Your task to perform on an android device: turn off picture-in-picture Image 0: 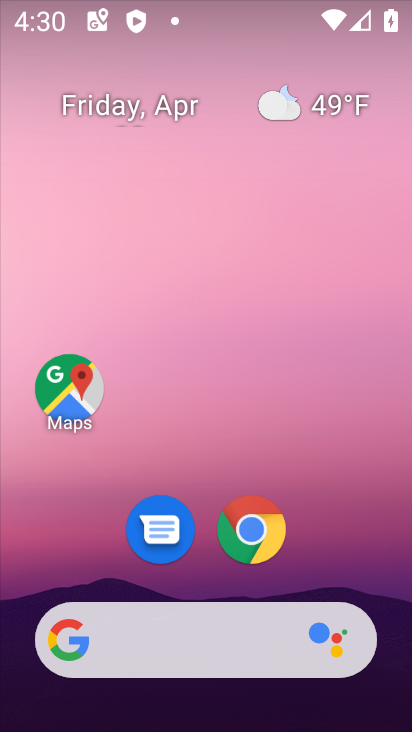
Step 0: drag from (220, 709) to (216, 113)
Your task to perform on an android device: turn off picture-in-picture Image 1: 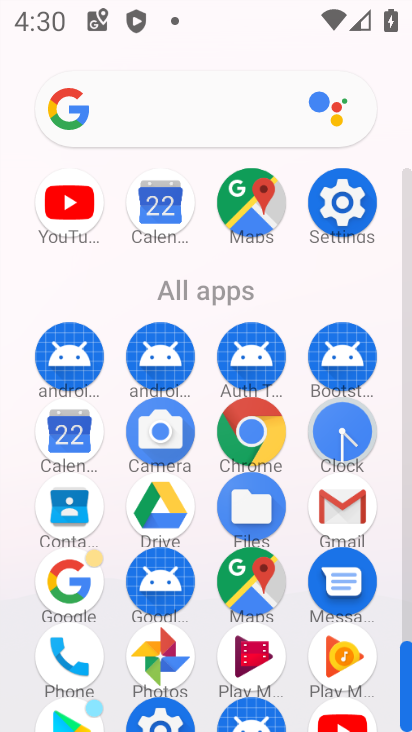
Step 1: click (327, 202)
Your task to perform on an android device: turn off picture-in-picture Image 2: 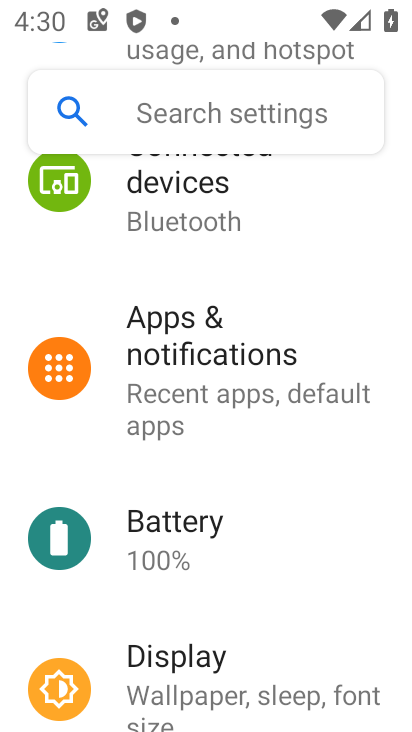
Step 2: click (169, 355)
Your task to perform on an android device: turn off picture-in-picture Image 3: 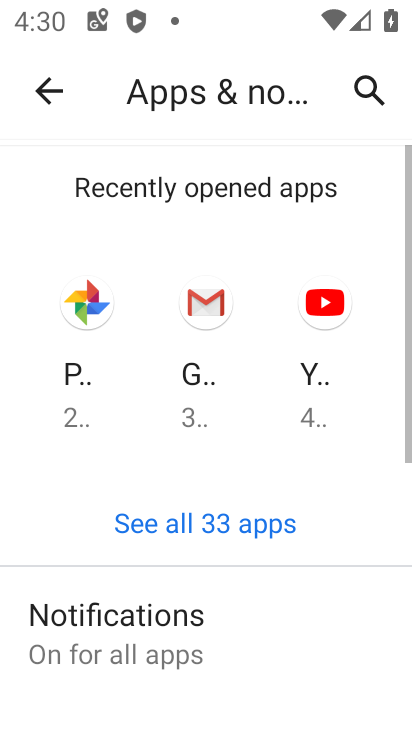
Step 3: drag from (193, 682) to (190, 297)
Your task to perform on an android device: turn off picture-in-picture Image 4: 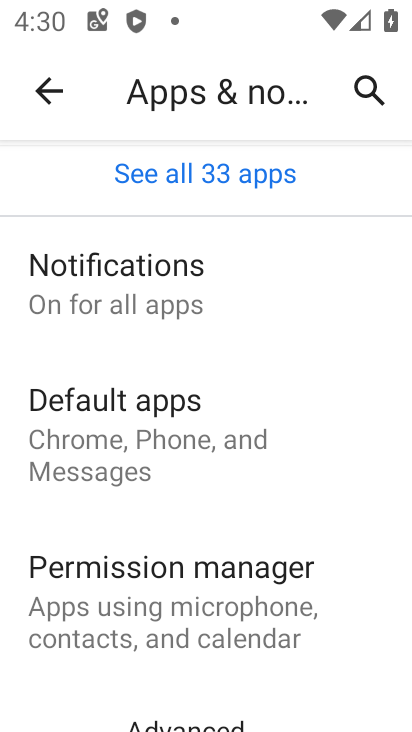
Step 4: drag from (160, 692) to (162, 236)
Your task to perform on an android device: turn off picture-in-picture Image 5: 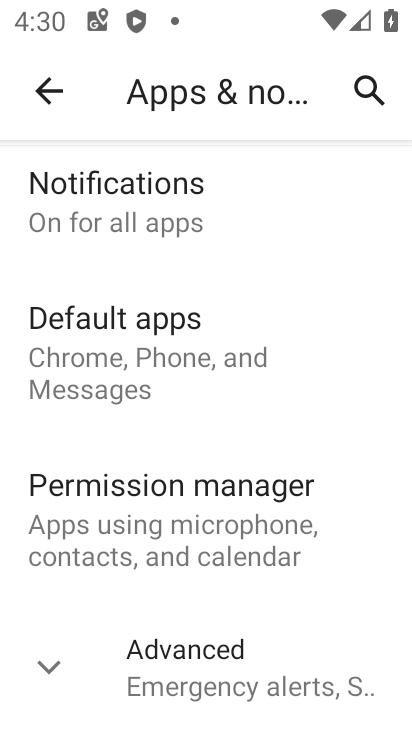
Step 5: click (214, 684)
Your task to perform on an android device: turn off picture-in-picture Image 6: 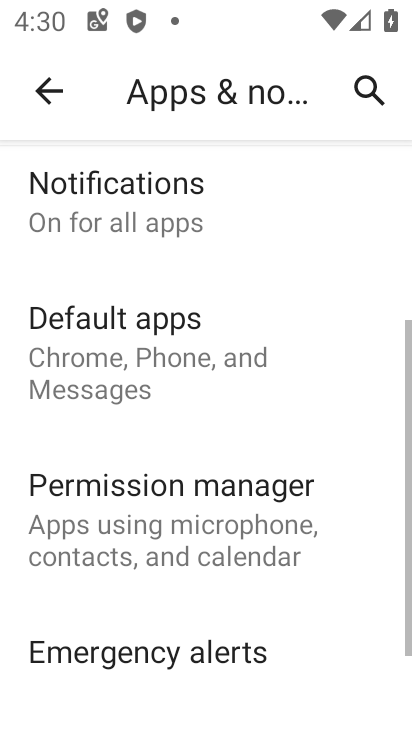
Step 6: drag from (213, 702) to (230, 287)
Your task to perform on an android device: turn off picture-in-picture Image 7: 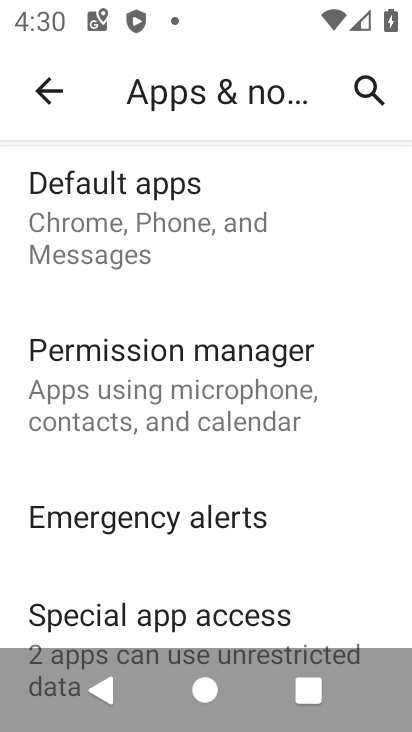
Step 7: click (218, 633)
Your task to perform on an android device: turn off picture-in-picture Image 8: 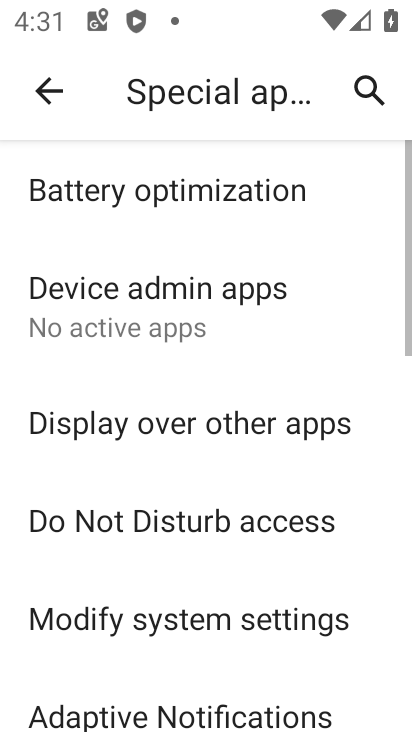
Step 8: drag from (203, 681) to (198, 370)
Your task to perform on an android device: turn off picture-in-picture Image 9: 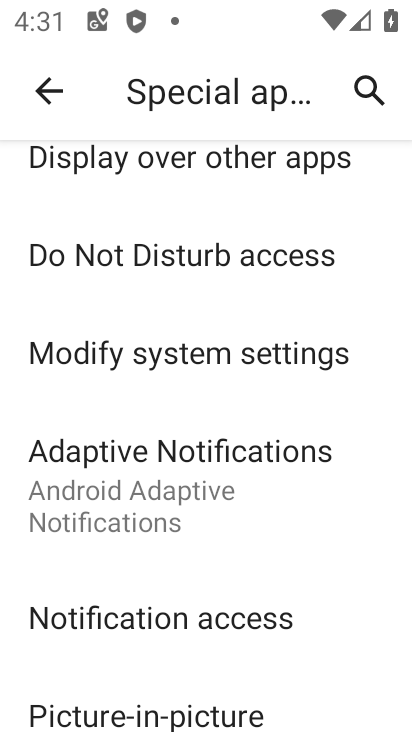
Step 9: drag from (185, 691) to (190, 368)
Your task to perform on an android device: turn off picture-in-picture Image 10: 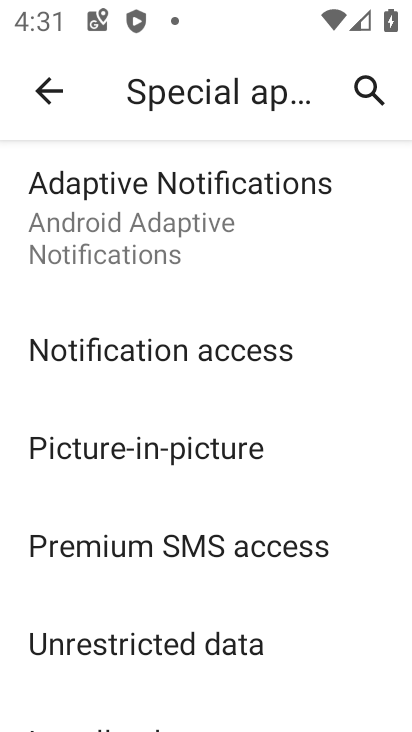
Step 10: click (144, 441)
Your task to perform on an android device: turn off picture-in-picture Image 11: 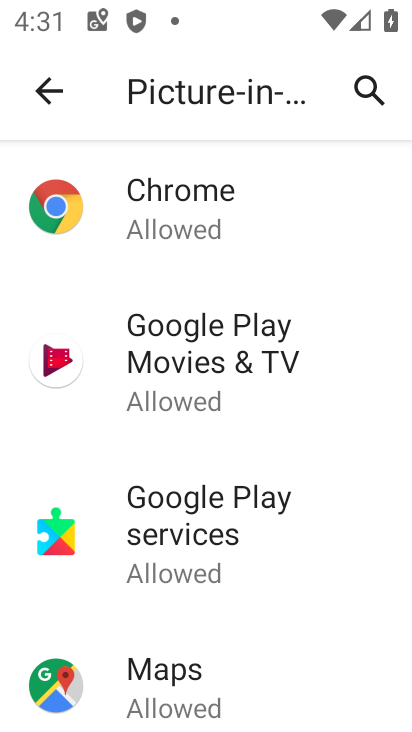
Step 11: drag from (238, 700) to (245, 315)
Your task to perform on an android device: turn off picture-in-picture Image 12: 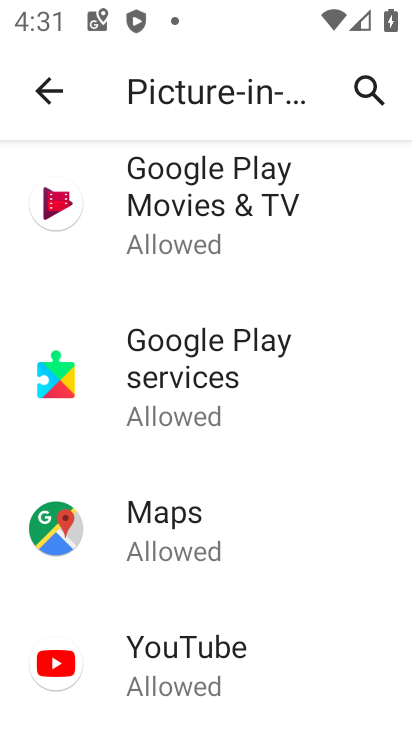
Step 12: click (196, 634)
Your task to perform on an android device: turn off picture-in-picture Image 13: 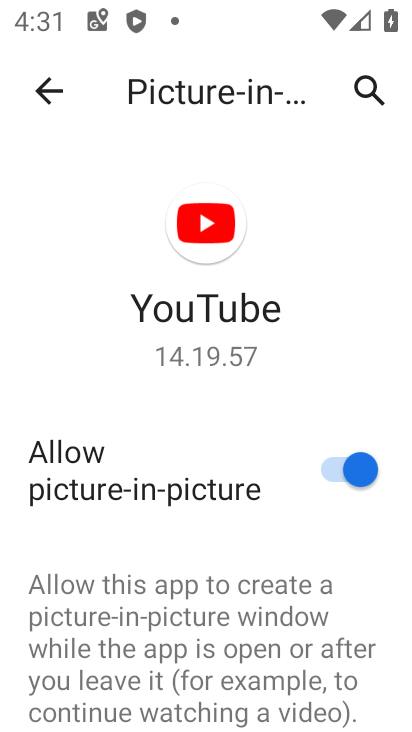
Step 13: click (330, 474)
Your task to perform on an android device: turn off picture-in-picture Image 14: 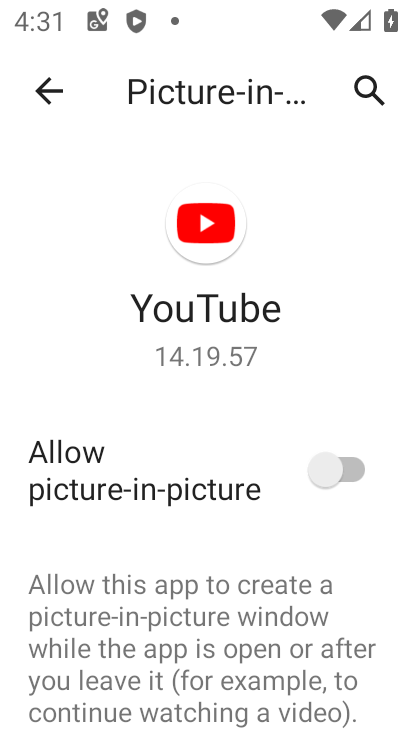
Step 14: task complete